Your task to perform on an android device: Open Google Maps and go to "Timeline" Image 0: 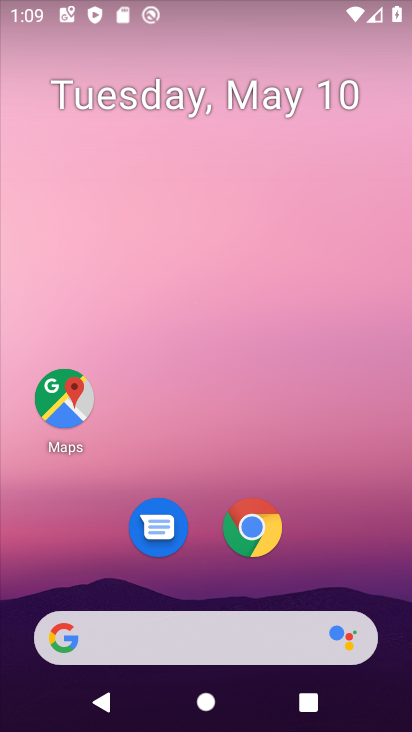
Step 0: click (66, 396)
Your task to perform on an android device: Open Google Maps and go to "Timeline" Image 1: 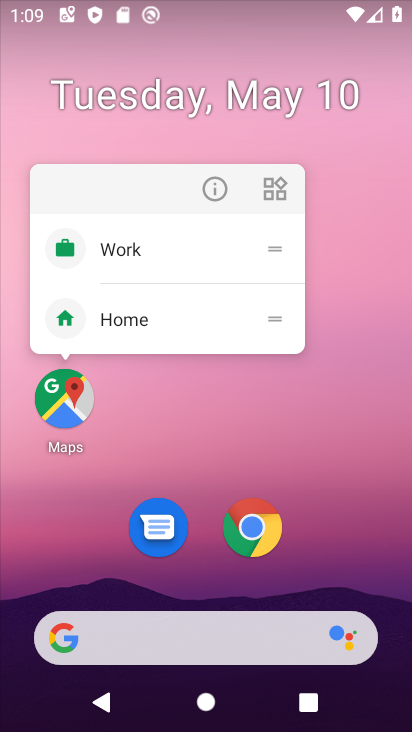
Step 1: click (45, 394)
Your task to perform on an android device: Open Google Maps and go to "Timeline" Image 2: 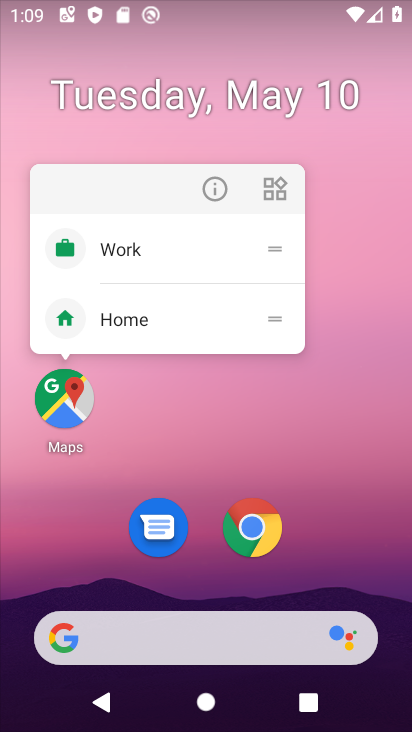
Step 2: click (58, 396)
Your task to perform on an android device: Open Google Maps and go to "Timeline" Image 3: 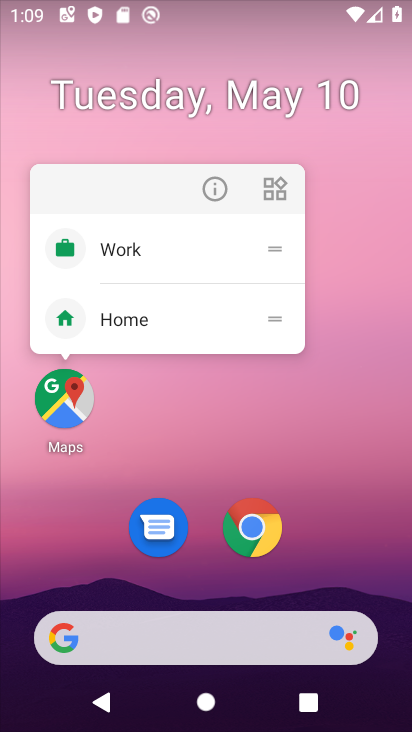
Step 3: click (63, 400)
Your task to perform on an android device: Open Google Maps and go to "Timeline" Image 4: 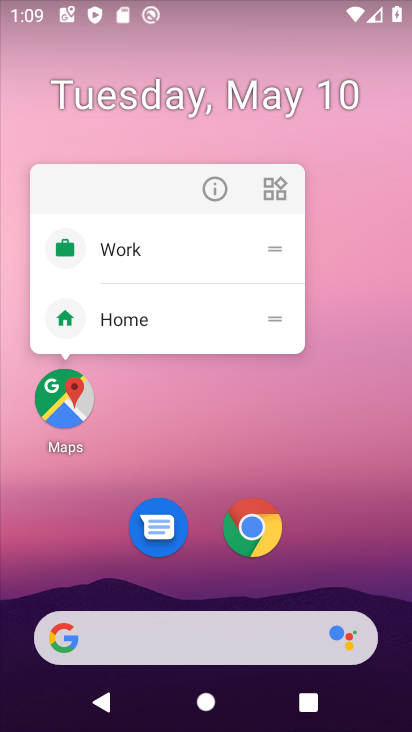
Step 4: click (62, 391)
Your task to perform on an android device: Open Google Maps and go to "Timeline" Image 5: 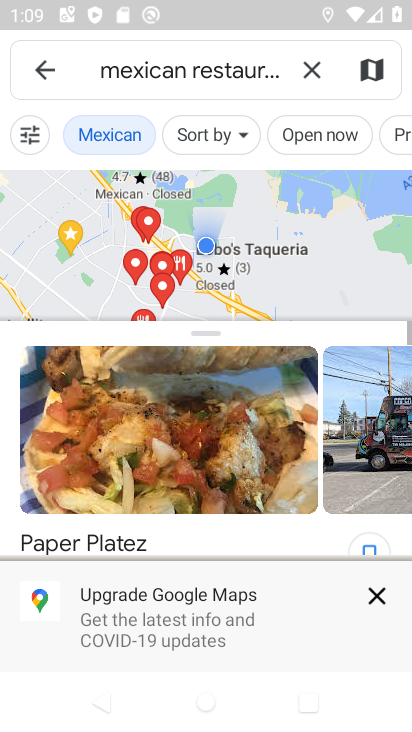
Step 5: click (36, 69)
Your task to perform on an android device: Open Google Maps and go to "Timeline" Image 6: 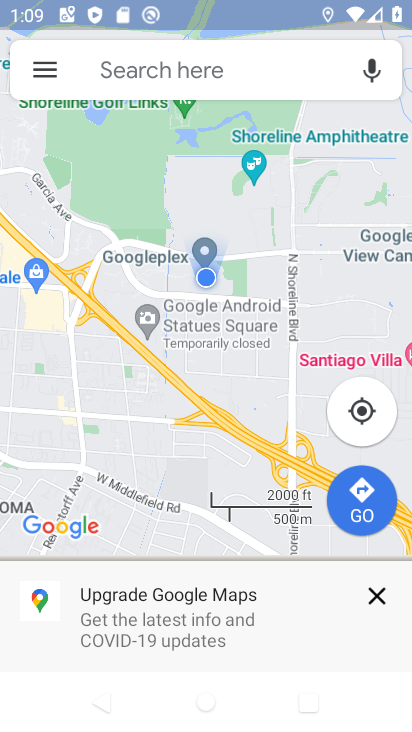
Step 6: click (37, 70)
Your task to perform on an android device: Open Google Maps and go to "Timeline" Image 7: 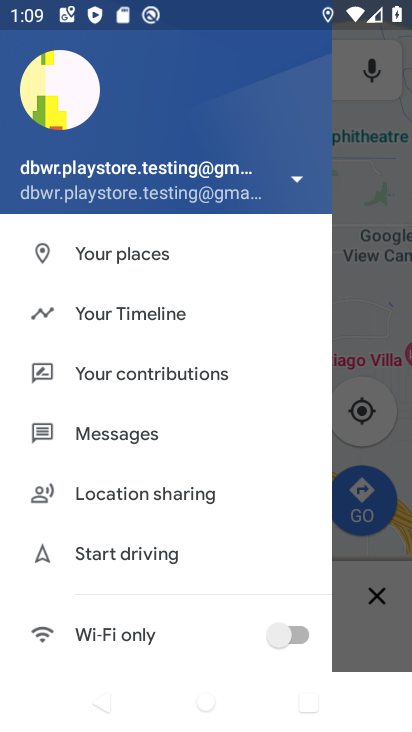
Step 7: click (181, 319)
Your task to perform on an android device: Open Google Maps and go to "Timeline" Image 8: 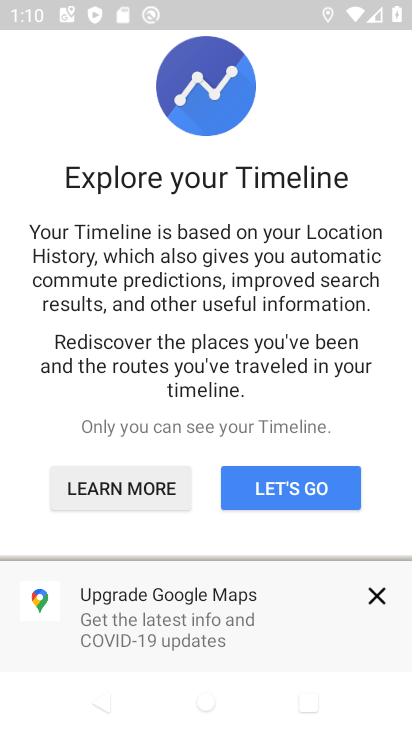
Step 8: task complete